Your task to perform on an android device: Open sound settings Image 0: 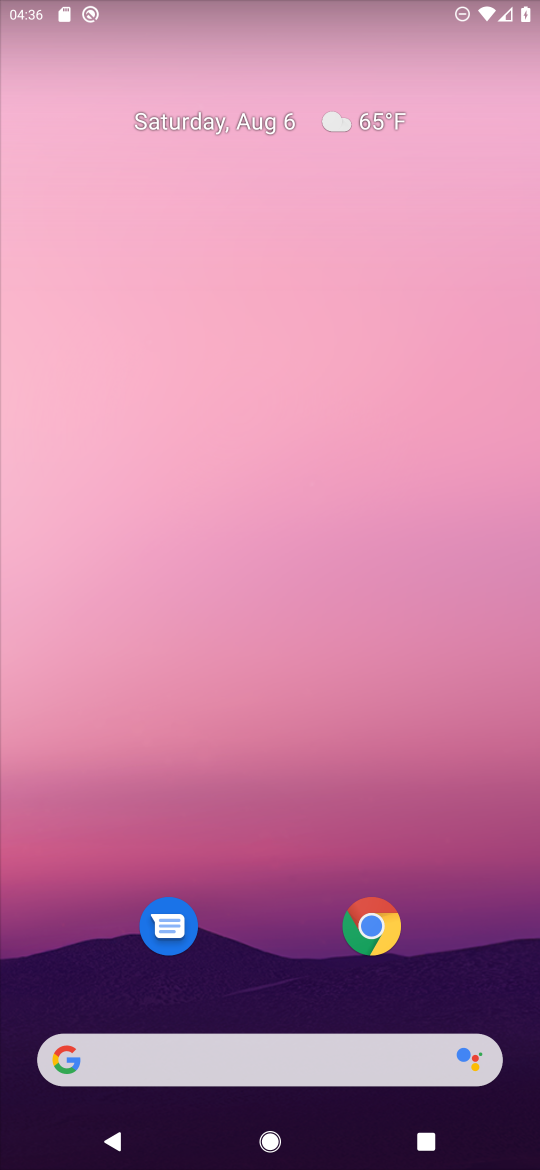
Step 0: drag from (244, 950) to (248, 296)
Your task to perform on an android device: Open sound settings Image 1: 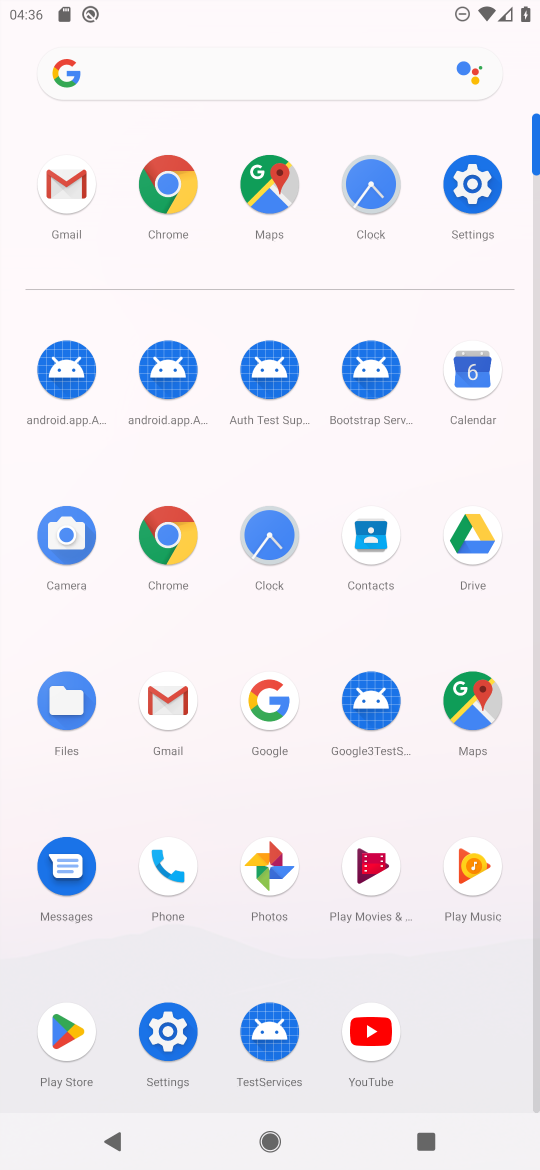
Step 1: click (447, 189)
Your task to perform on an android device: Open sound settings Image 2: 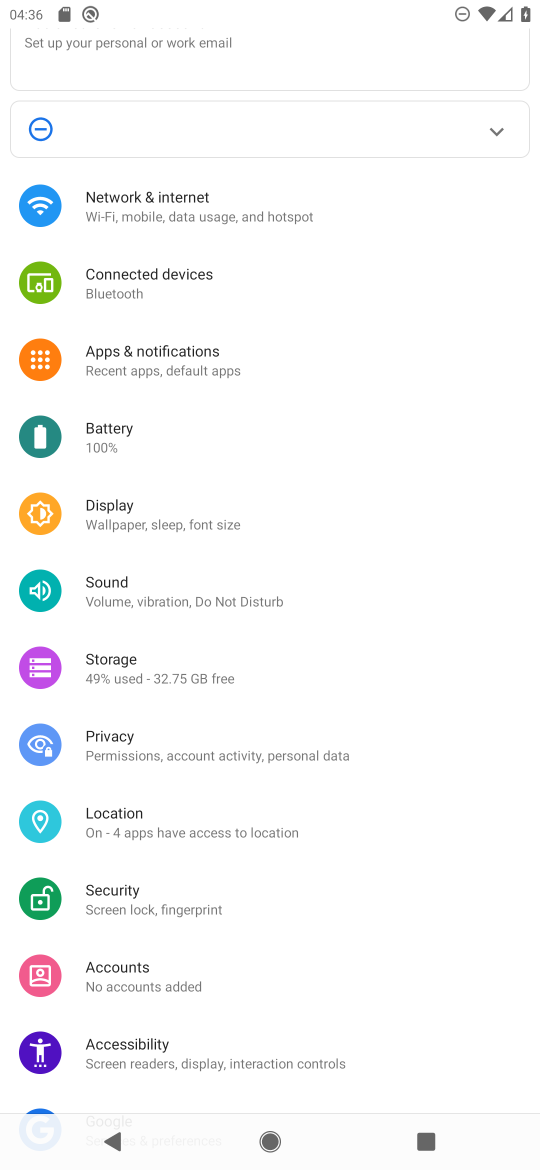
Step 2: click (140, 576)
Your task to perform on an android device: Open sound settings Image 3: 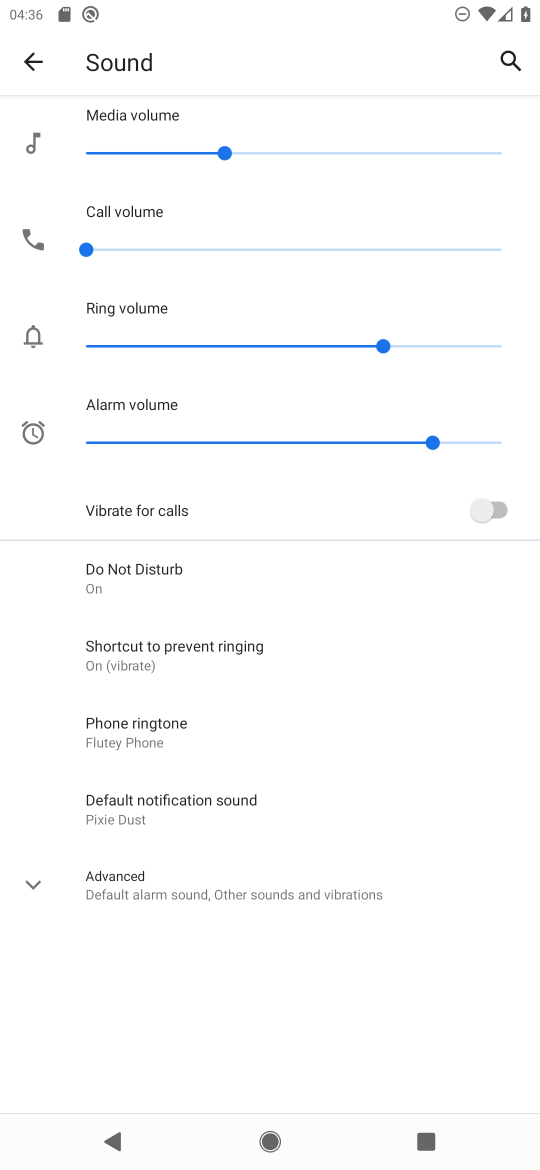
Step 3: task complete